Your task to perform on an android device: allow cookies in the chrome app Image 0: 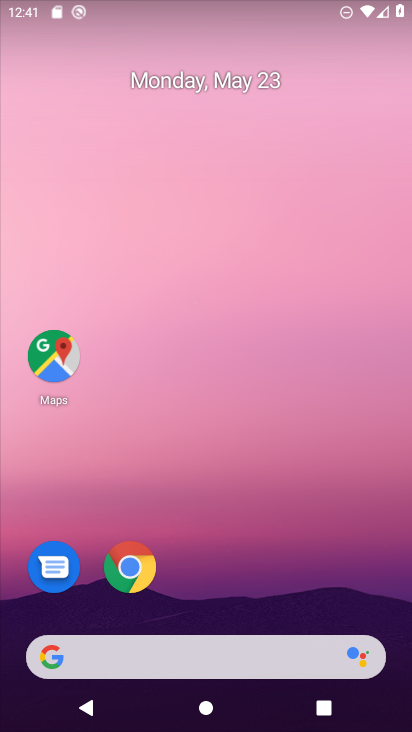
Step 0: click (145, 569)
Your task to perform on an android device: allow cookies in the chrome app Image 1: 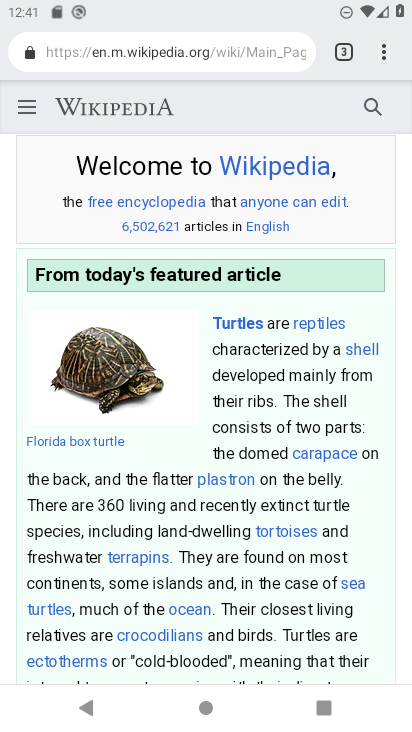
Step 1: click (387, 50)
Your task to perform on an android device: allow cookies in the chrome app Image 2: 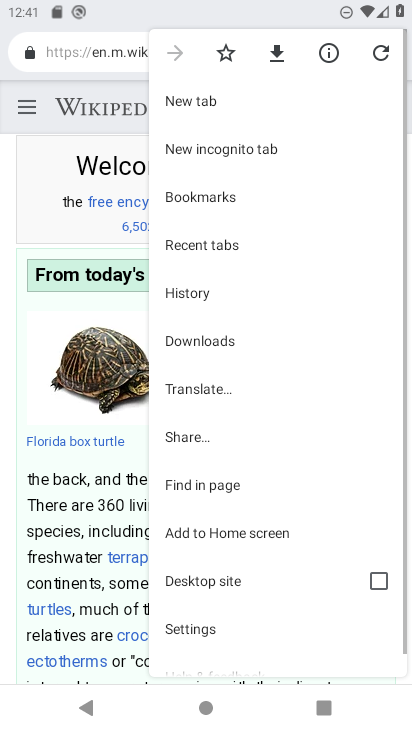
Step 2: drag from (215, 582) to (232, 359)
Your task to perform on an android device: allow cookies in the chrome app Image 3: 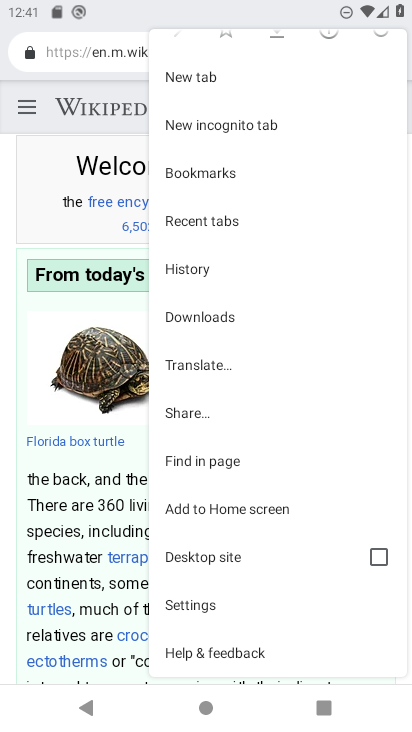
Step 3: click (206, 593)
Your task to perform on an android device: allow cookies in the chrome app Image 4: 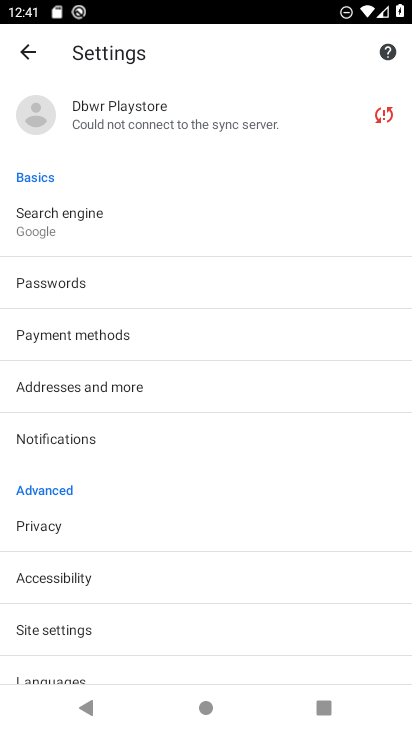
Step 4: click (111, 631)
Your task to perform on an android device: allow cookies in the chrome app Image 5: 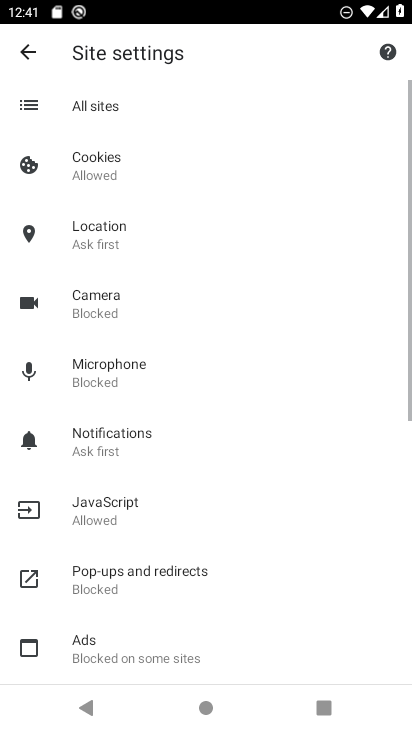
Step 5: click (144, 164)
Your task to perform on an android device: allow cookies in the chrome app Image 6: 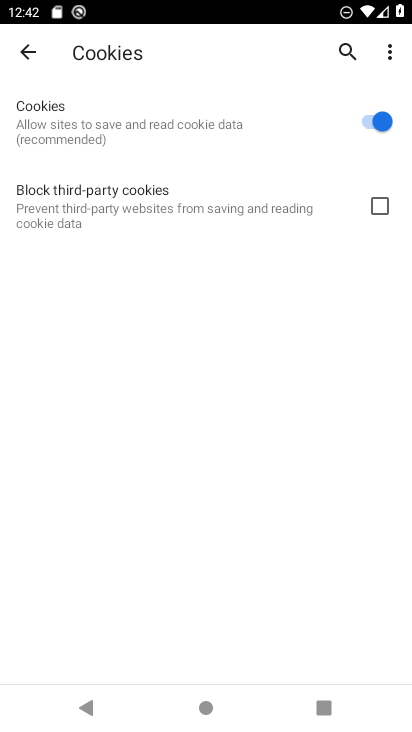
Step 6: task complete